Your task to perform on an android device: delete location history Image 0: 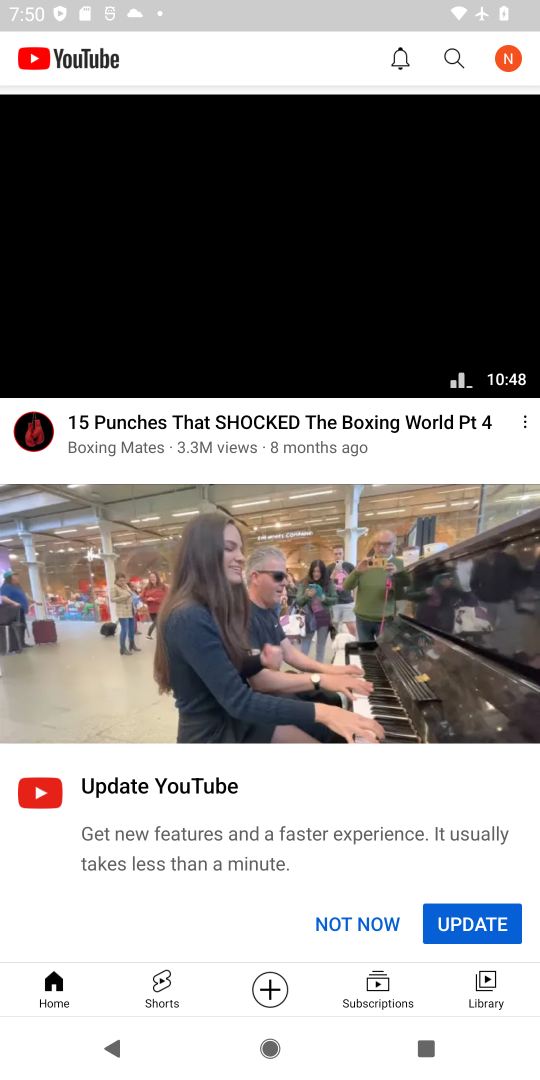
Step 0: press home button
Your task to perform on an android device: delete location history Image 1: 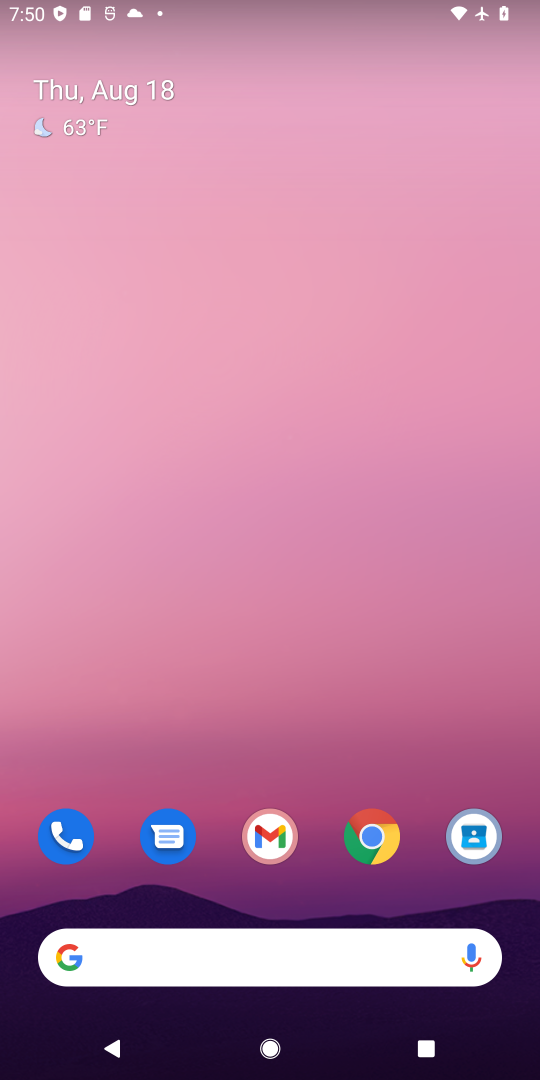
Step 1: drag from (358, 683) to (328, 14)
Your task to perform on an android device: delete location history Image 2: 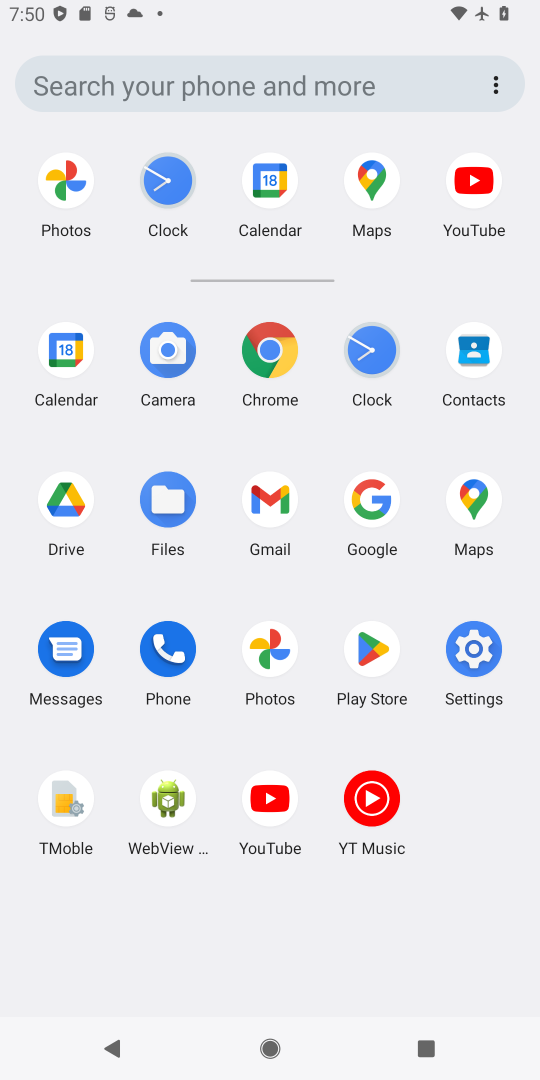
Step 2: click (474, 502)
Your task to perform on an android device: delete location history Image 3: 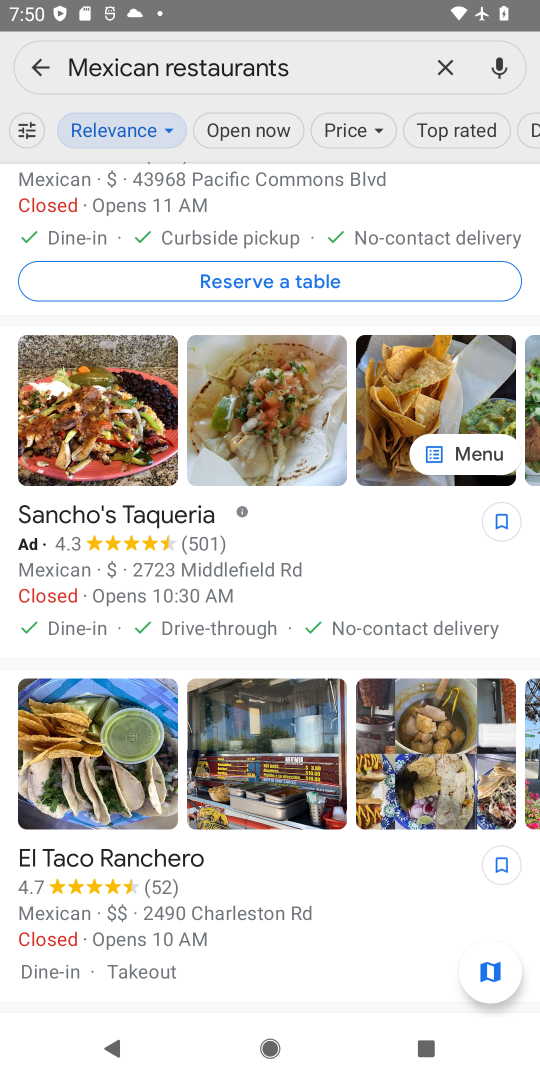
Step 3: press back button
Your task to perform on an android device: delete location history Image 4: 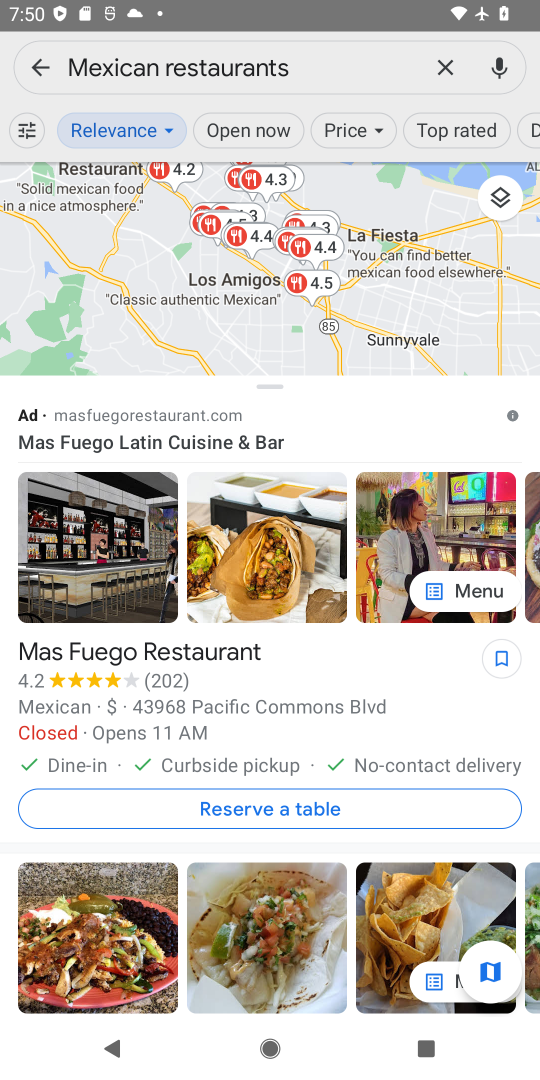
Step 4: click (38, 52)
Your task to perform on an android device: delete location history Image 5: 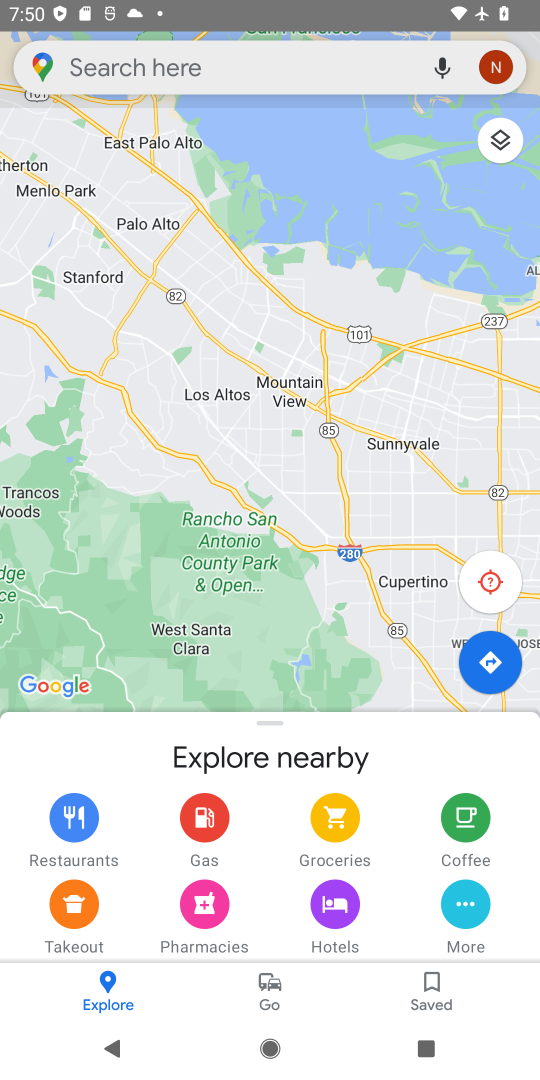
Step 5: click (505, 67)
Your task to perform on an android device: delete location history Image 6: 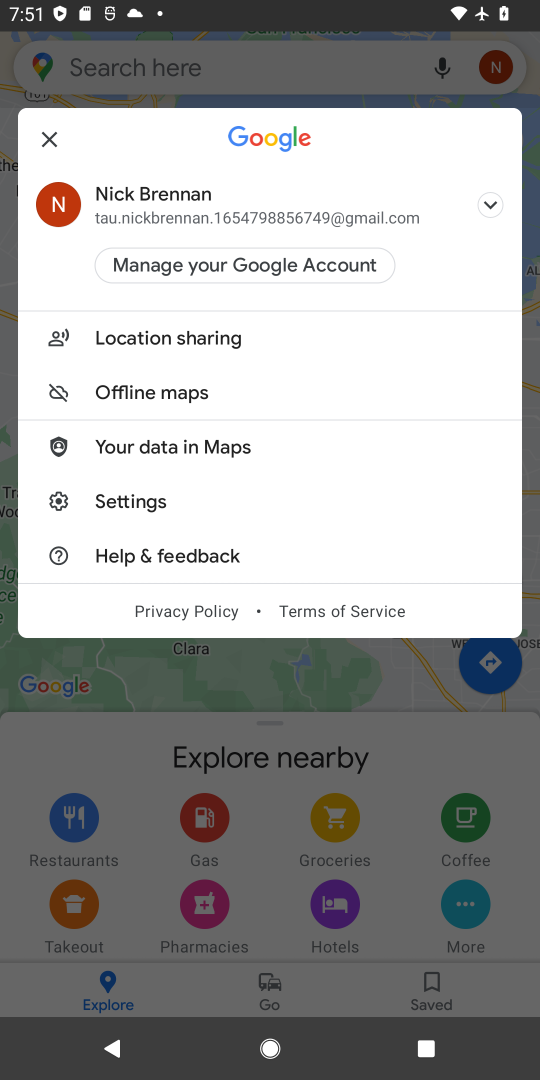
Step 6: click (153, 491)
Your task to perform on an android device: delete location history Image 7: 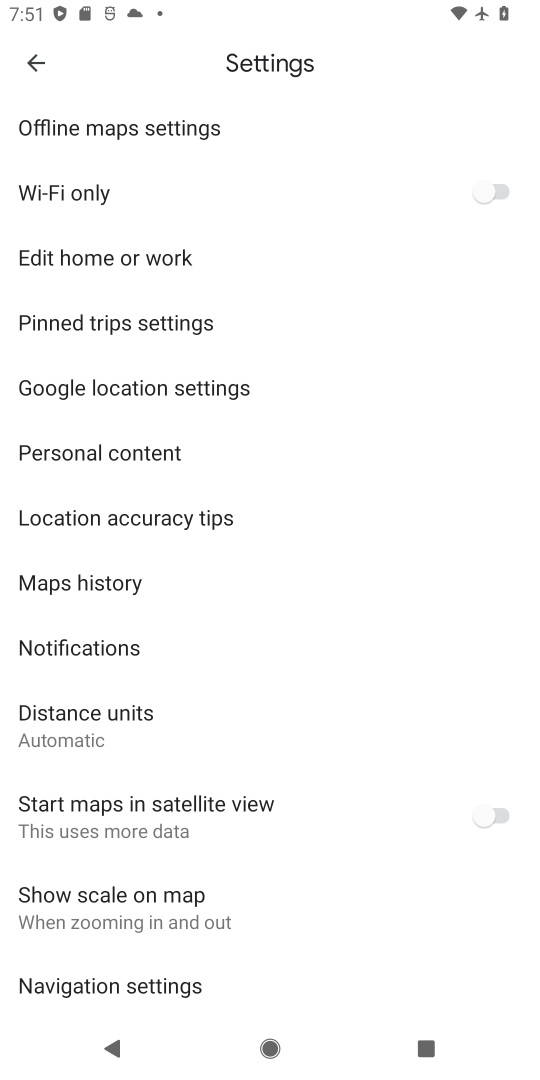
Step 7: click (129, 588)
Your task to perform on an android device: delete location history Image 8: 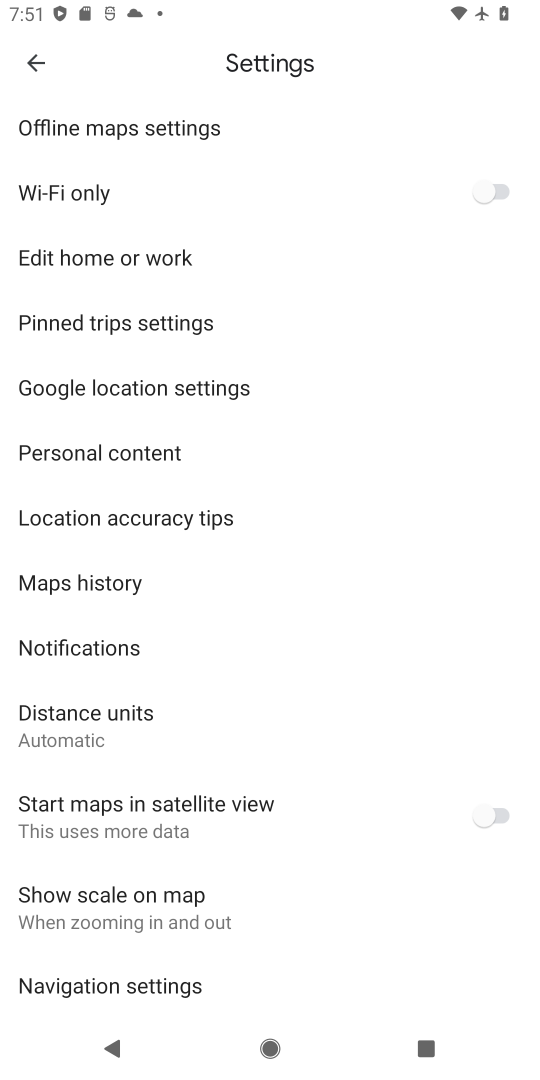
Step 8: click (117, 581)
Your task to perform on an android device: delete location history Image 9: 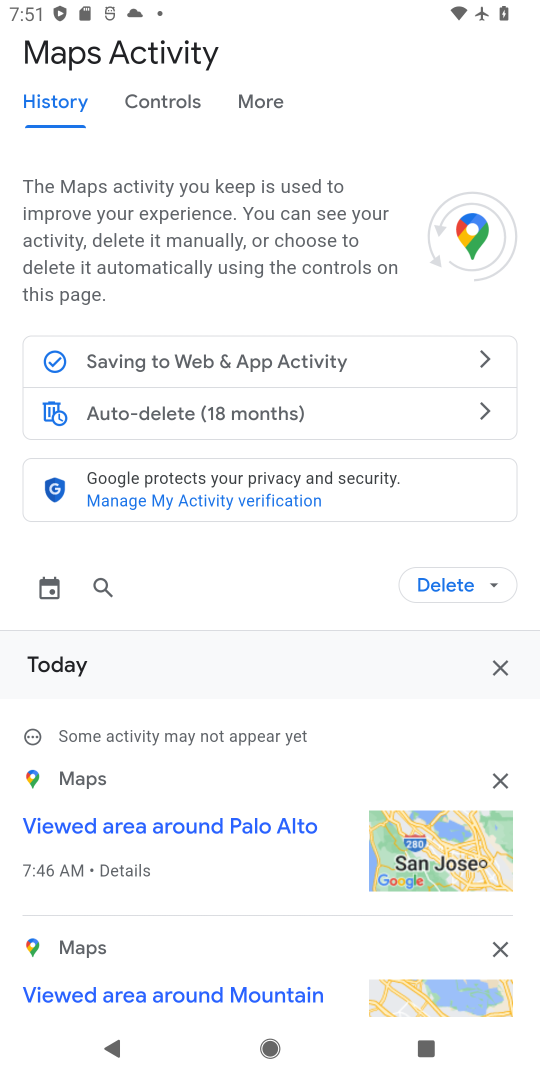
Step 9: click (472, 583)
Your task to perform on an android device: delete location history Image 10: 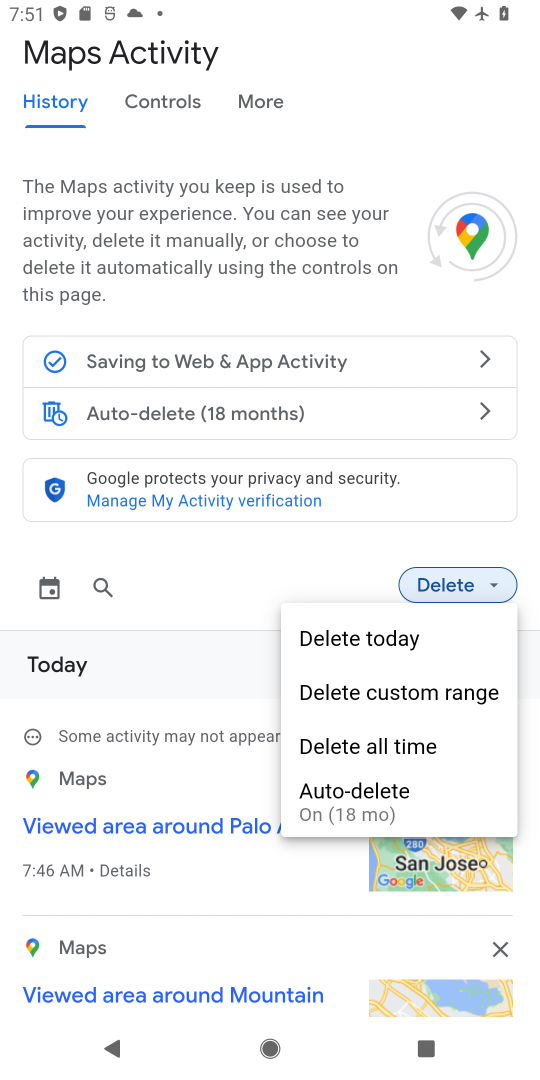
Step 10: click (394, 738)
Your task to perform on an android device: delete location history Image 11: 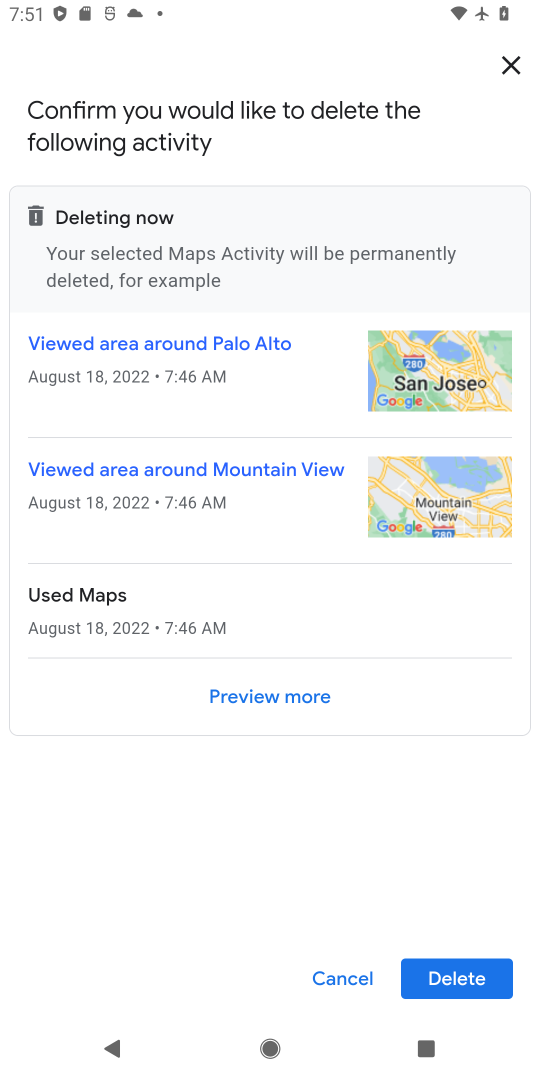
Step 11: click (467, 977)
Your task to perform on an android device: delete location history Image 12: 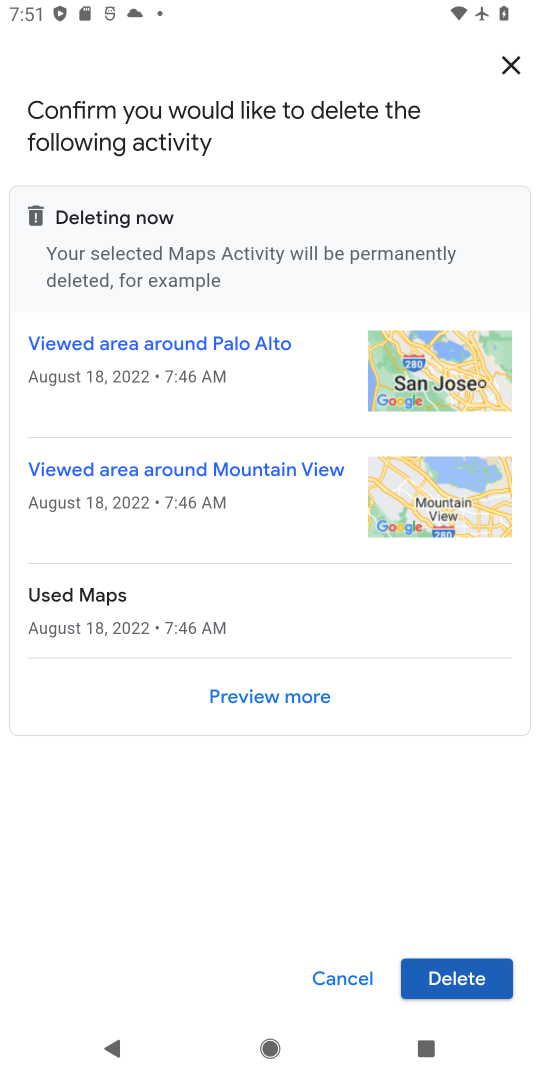
Step 12: click (467, 977)
Your task to perform on an android device: delete location history Image 13: 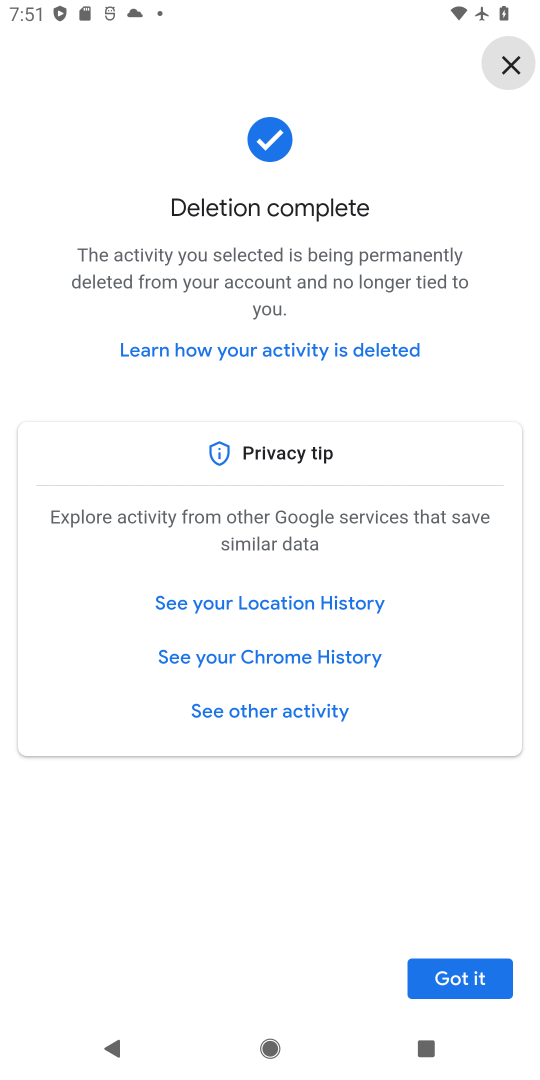
Step 13: task complete